Your task to perform on an android device: show emergency info Image 0: 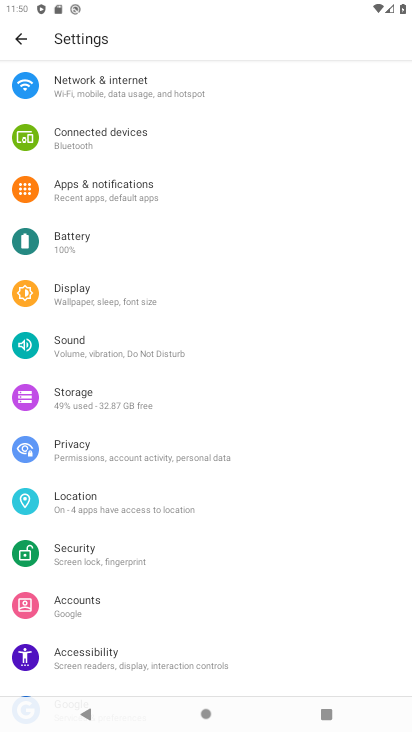
Step 0: drag from (250, 464) to (236, 73)
Your task to perform on an android device: show emergency info Image 1: 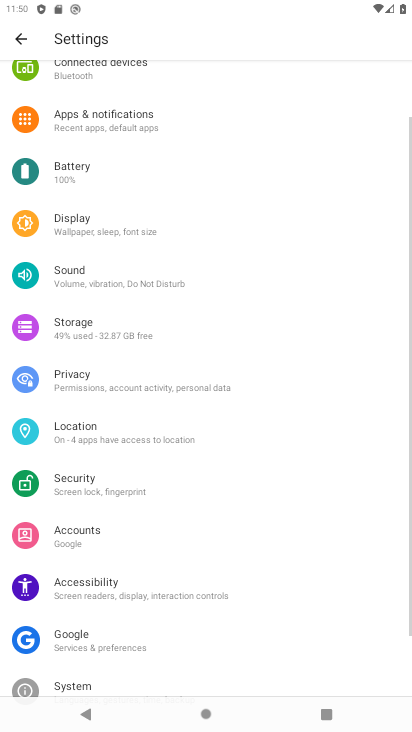
Step 1: drag from (212, 657) to (216, 176)
Your task to perform on an android device: show emergency info Image 2: 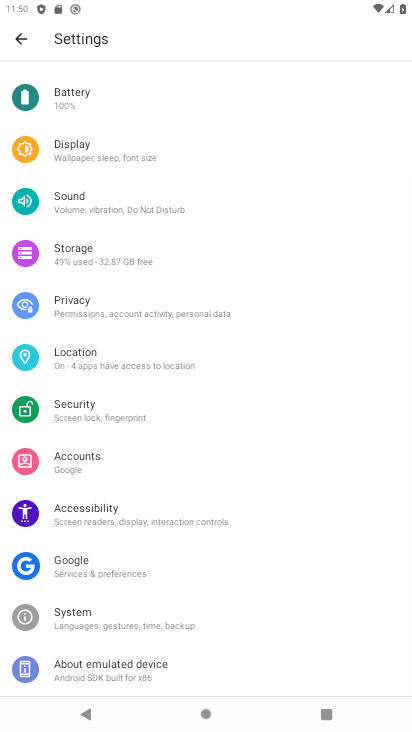
Step 2: click (131, 672)
Your task to perform on an android device: show emergency info Image 3: 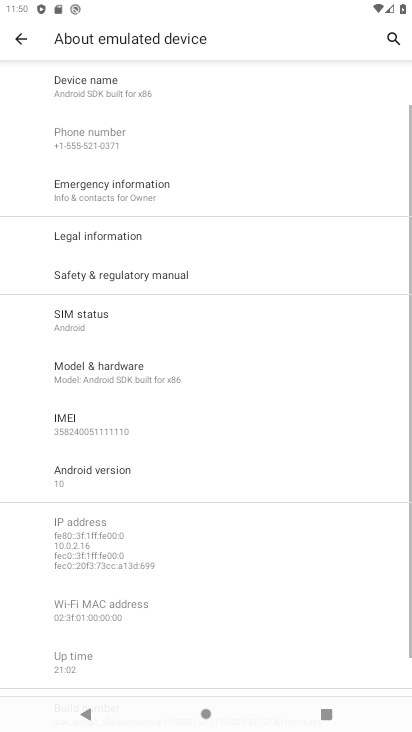
Step 3: click (233, 191)
Your task to perform on an android device: show emergency info Image 4: 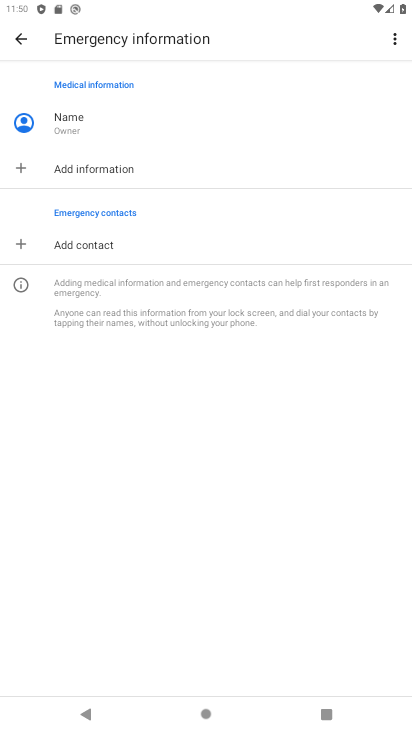
Step 4: task complete